Your task to perform on an android device: toggle improve location accuracy Image 0: 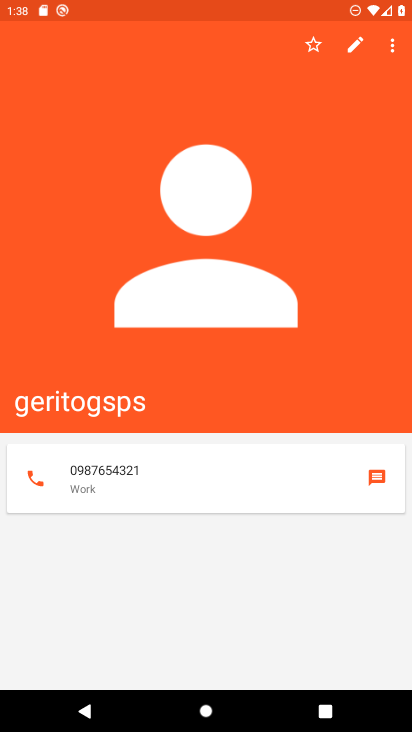
Step 0: press home button
Your task to perform on an android device: toggle improve location accuracy Image 1: 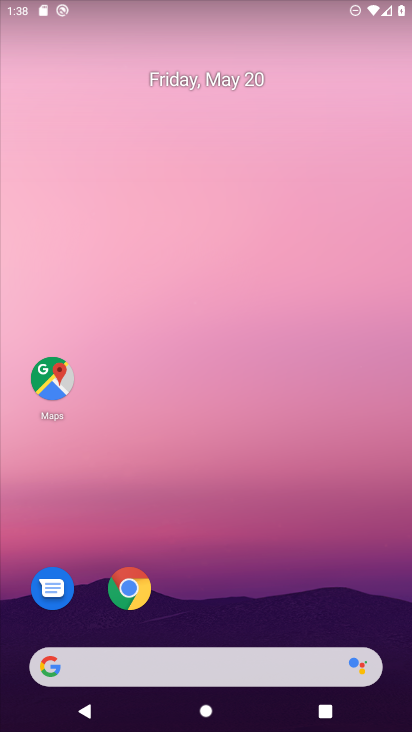
Step 1: drag from (391, 629) to (295, 50)
Your task to perform on an android device: toggle improve location accuracy Image 2: 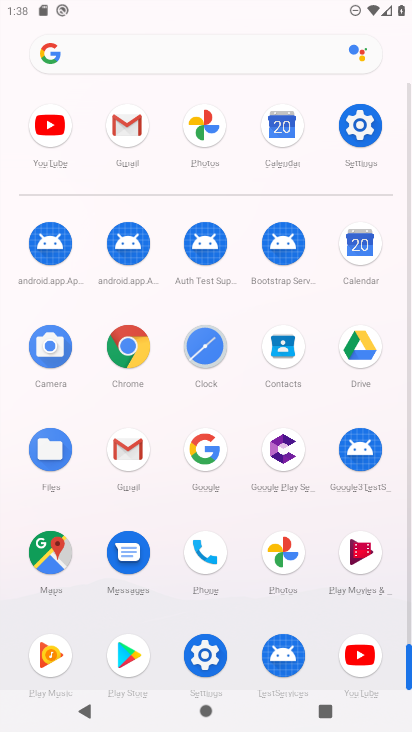
Step 2: click (206, 656)
Your task to perform on an android device: toggle improve location accuracy Image 3: 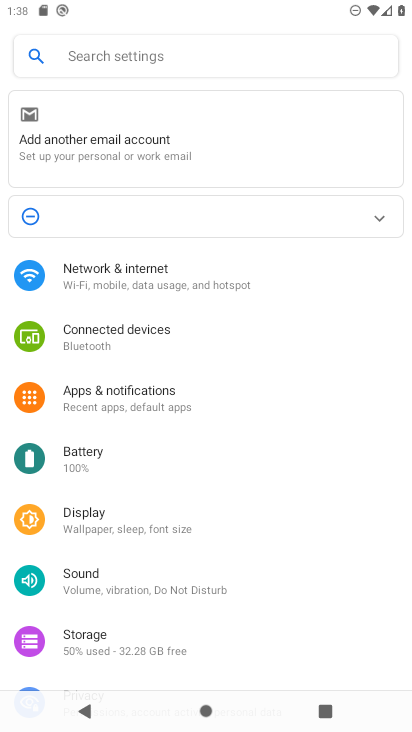
Step 3: drag from (319, 595) to (294, 314)
Your task to perform on an android device: toggle improve location accuracy Image 4: 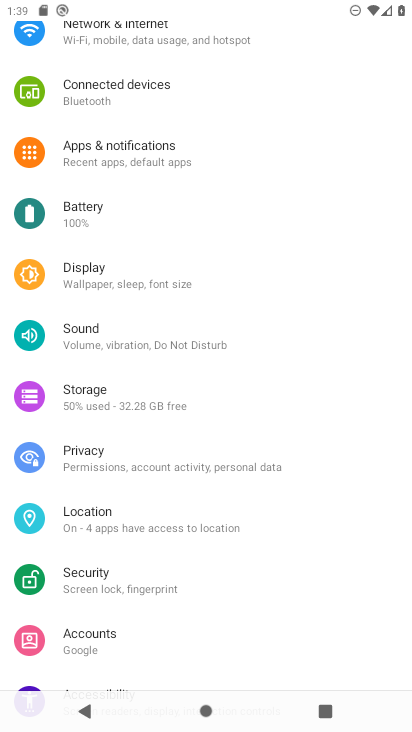
Step 4: click (105, 519)
Your task to perform on an android device: toggle improve location accuracy Image 5: 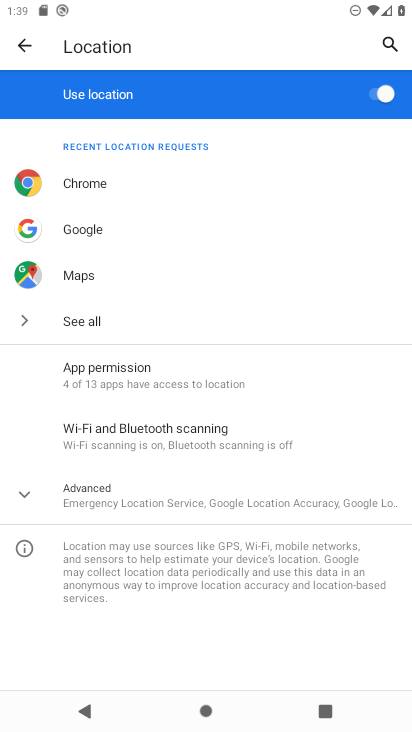
Step 5: click (34, 491)
Your task to perform on an android device: toggle improve location accuracy Image 6: 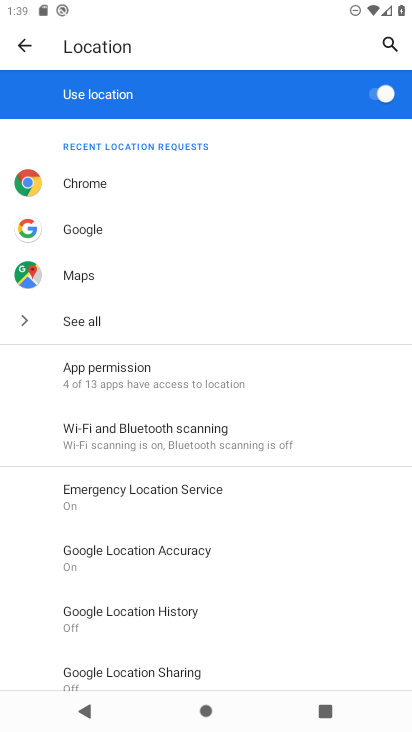
Step 6: drag from (248, 660) to (263, 466)
Your task to perform on an android device: toggle improve location accuracy Image 7: 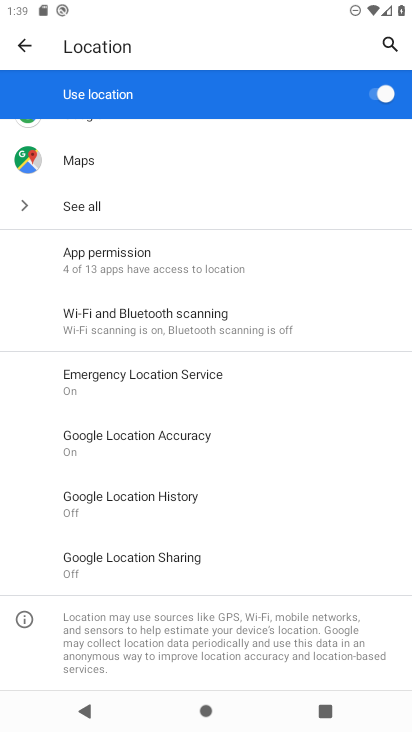
Step 7: click (106, 429)
Your task to perform on an android device: toggle improve location accuracy Image 8: 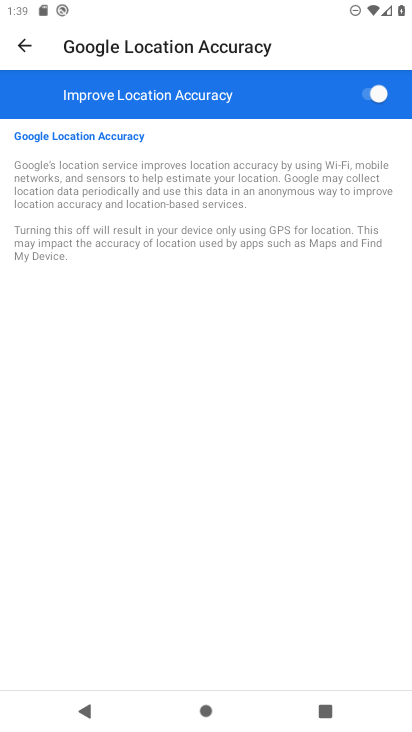
Step 8: click (364, 92)
Your task to perform on an android device: toggle improve location accuracy Image 9: 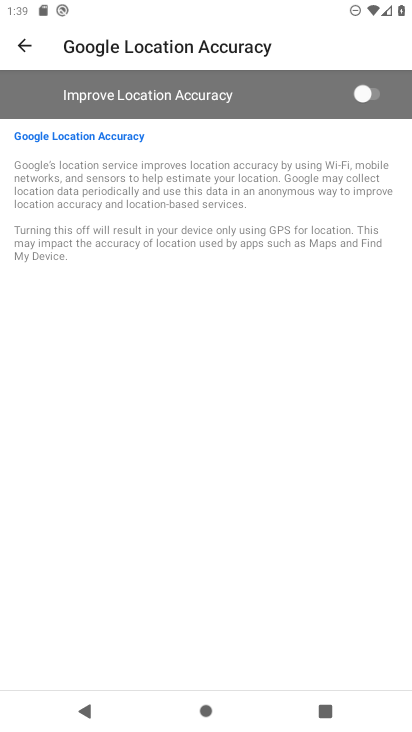
Step 9: task complete